Your task to perform on an android device: turn off priority inbox in the gmail app Image 0: 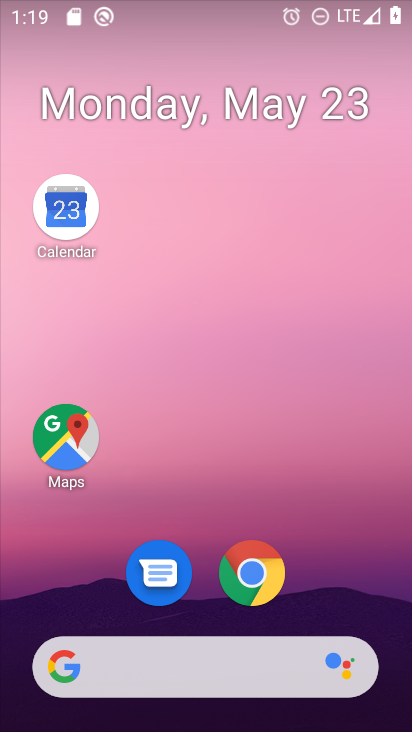
Step 0: drag from (205, 604) to (242, 80)
Your task to perform on an android device: turn off priority inbox in the gmail app Image 1: 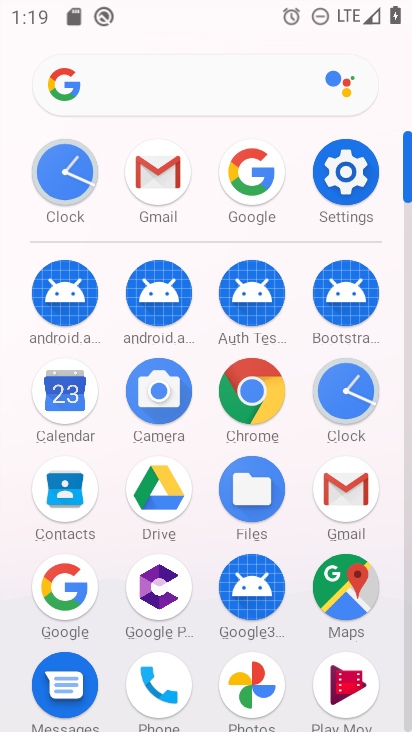
Step 1: click (344, 495)
Your task to perform on an android device: turn off priority inbox in the gmail app Image 2: 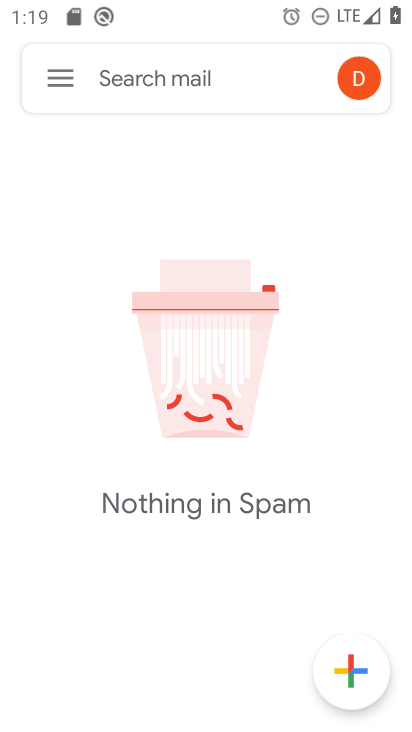
Step 2: click (59, 73)
Your task to perform on an android device: turn off priority inbox in the gmail app Image 3: 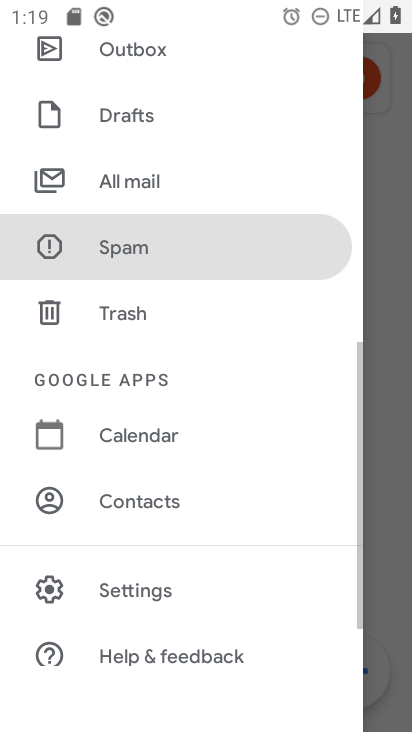
Step 3: click (128, 604)
Your task to perform on an android device: turn off priority inbox in the gmail app Image 4: 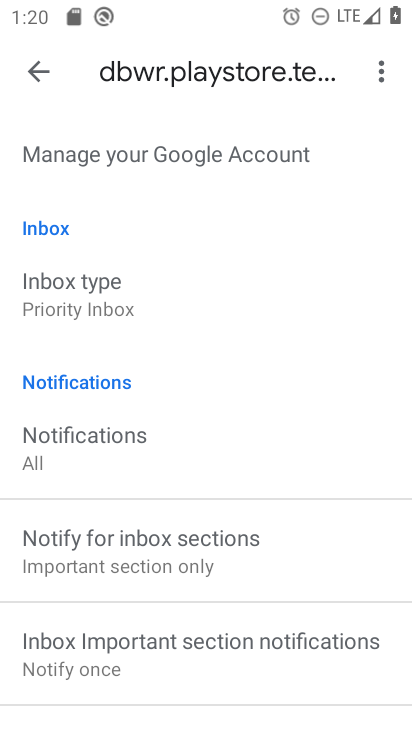
Step 4: click (88, 269)
Your task to perform on an android device: turn off priority inbox in the gmail app Image 5: 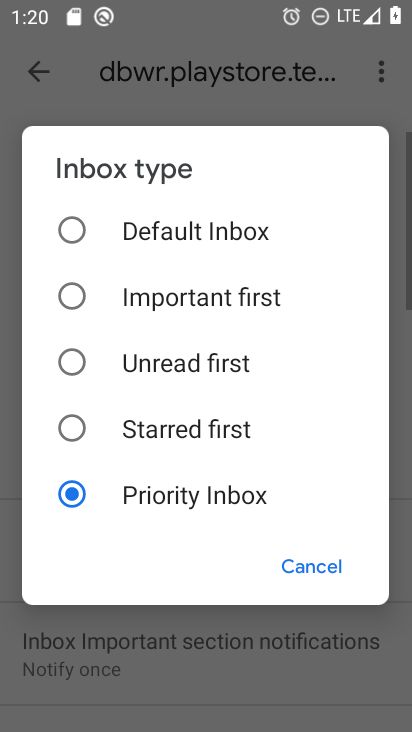
Step 5: click (114, 254)
Your task to perform on an android device: turn off priority inbox in the gmail app Image 6: 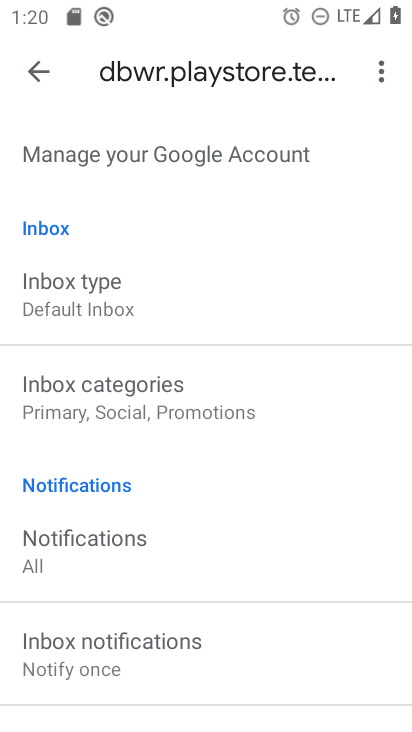
Step 6: task complete